Your task to perform on an android device: delete the emails in spam in the gmail app Image 0: 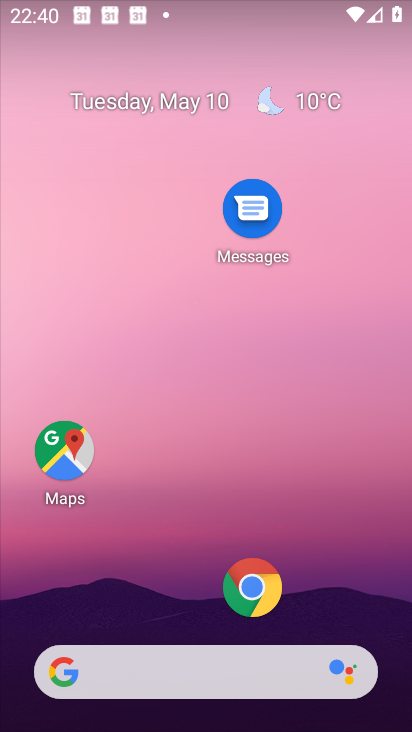
Step 0: drag from (163, 583) to (213, 113)
Your task to perform on an android device: delete the emails in spam in the gmail app Image 1: 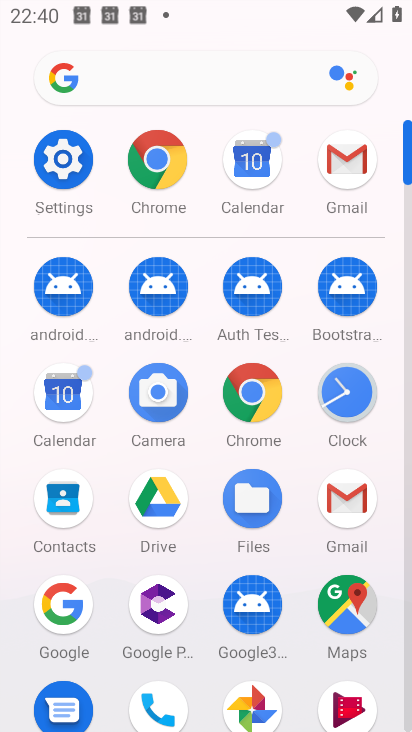
Step 1: click (353, 516)
Your task to perform on an android device: delete the emails in spam in the gmail app Image 2: 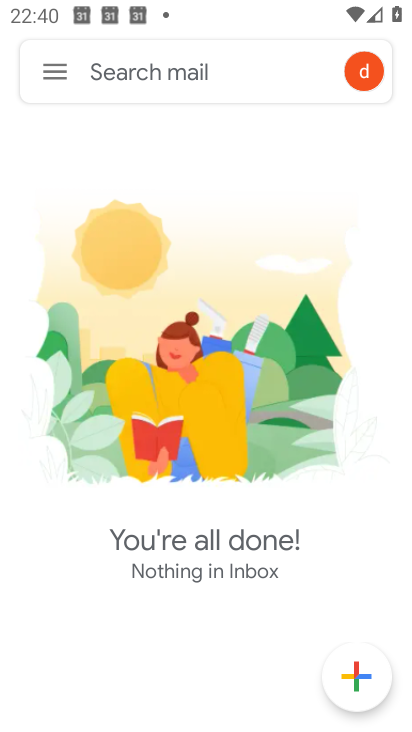
Step 2: click (61, 72)
Your task to perform on an android device: delete the emails in spam in the gmail app Image 3: 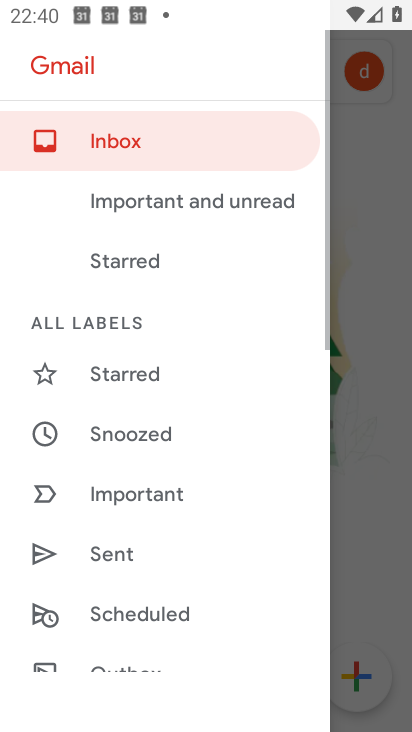
Step 3: drag from (142, 598) to (170, 341)
Your task to perform on an android device: delete the emails in spam in the gmail app Image 4: 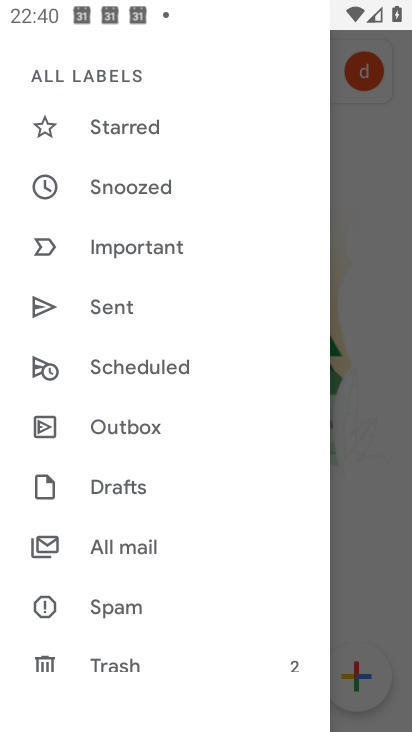
Step 4: click (113, 616)
Your task to perform on an android device: delete the emails in spam in the gmail app Image 5: 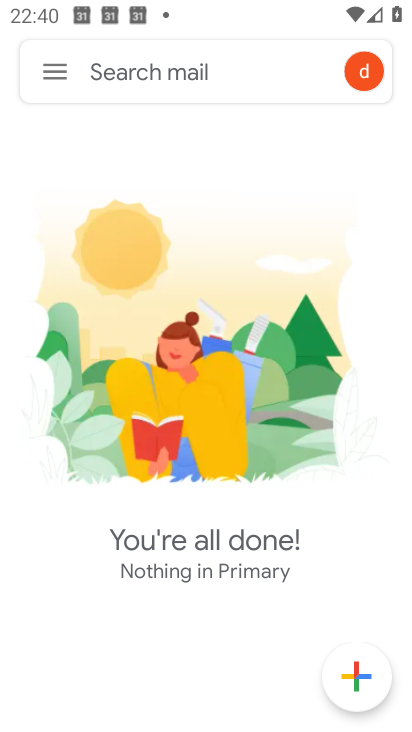
Step 5: task complete